Your task to perform on an android device: Open internet settings Image 0: 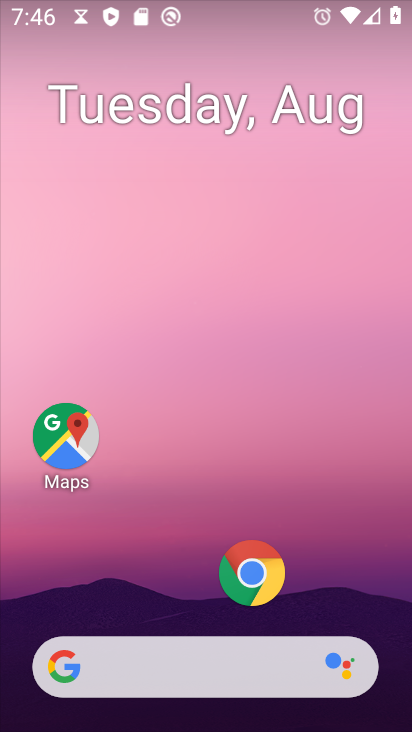
Step 0: drag from (188, 601) to (180, 33)
Your task to perform on an android device: Open internet settings Image 1: 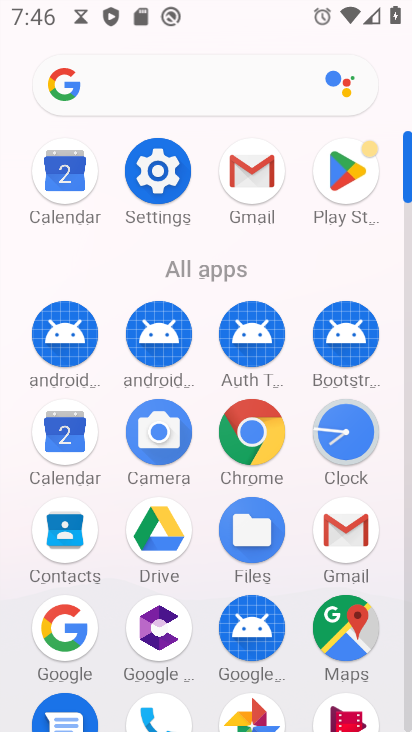
Step 1: click (154, 160)
Your task to perform on an android device: Open internet settings Image 2: 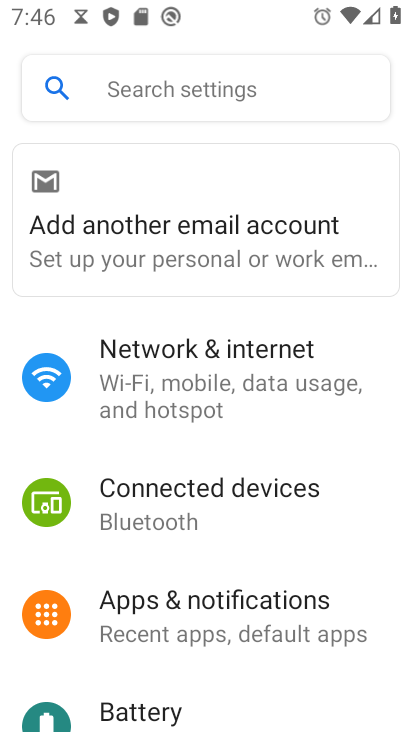
Step 2: click (189, 380)
Your task to perform on an android device: Open internet settings Image 3: 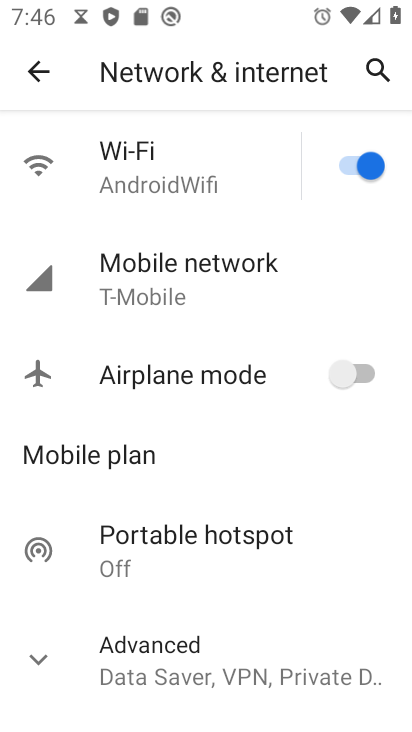
Step 3: click (43, 665)
Your task to perform on an android device: Open internet settings Image 4: 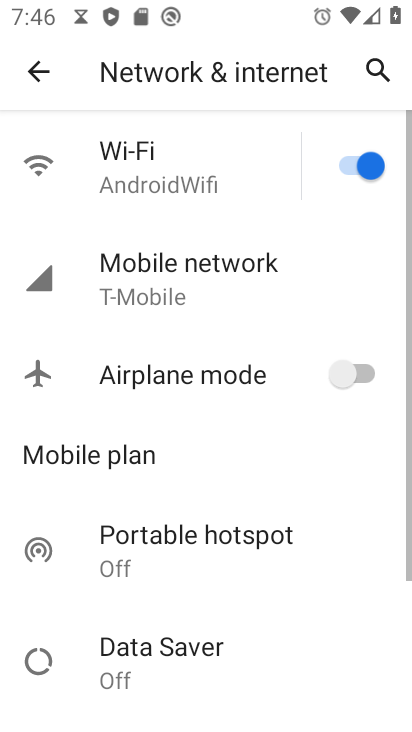
Step 4: task complete